Your task to perform on an android device: change the clock style Image 0: 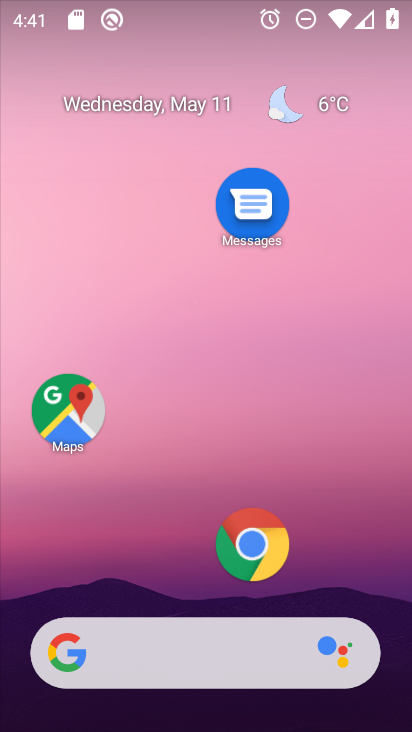
Step 0: drag from (161, 533) to (244, 1)
Your task to perform on an android device: change the clock style Image 1: 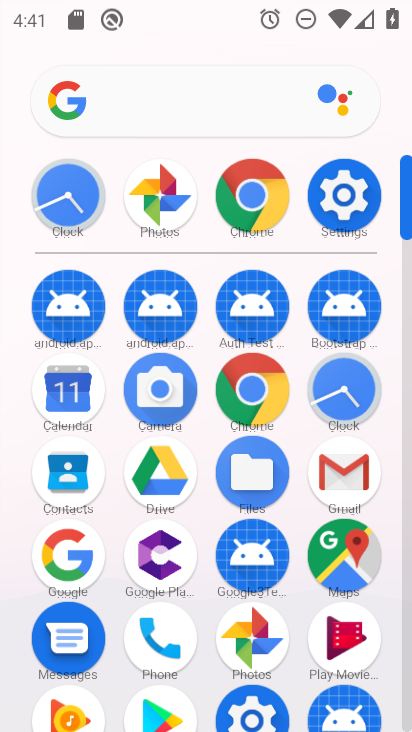
Step 1: click (349, 388)
Your task to perform on an android device: change the clock style Image 2: 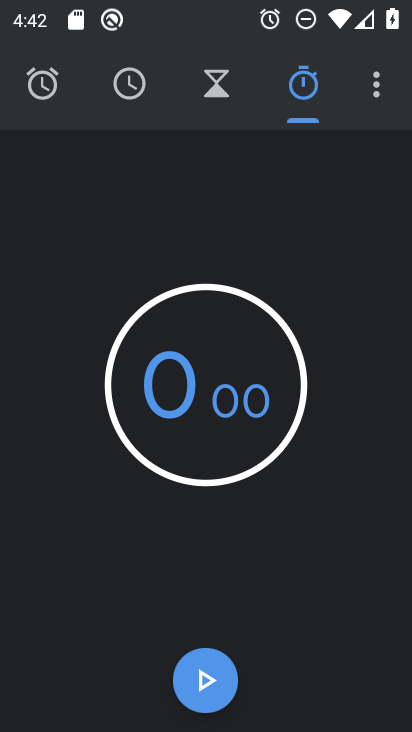
Step 2: click (377, 81)
Your task to perform on an android device: change the clock style Image 3: 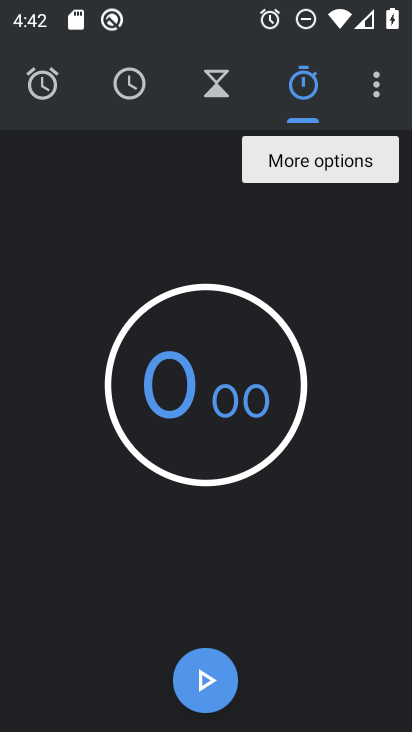
Step 3: click (377, 81)
Your task to perform on an android device: change the clock style Image 4: 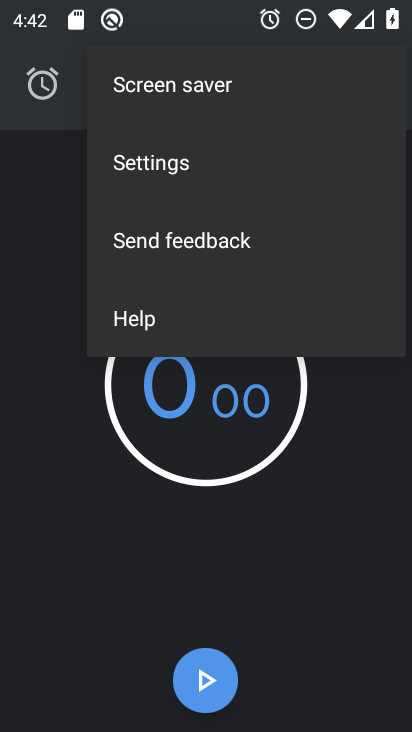
Step 4: click (165, 171)
Your task to perform on an android device: change the clock style Image 5: 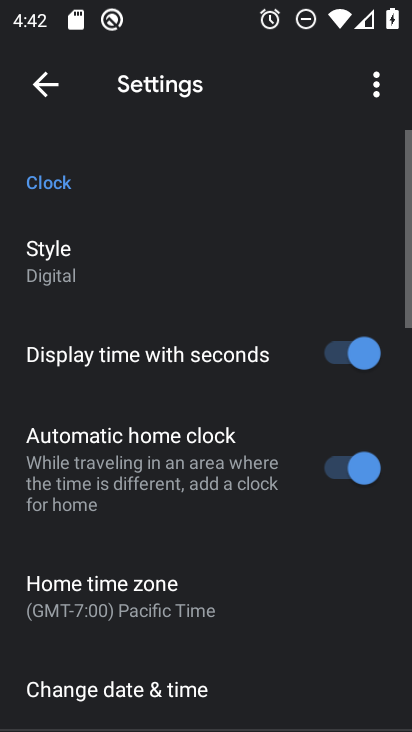
Step 5: click (119, 252)
Your task to perform on an android device: change the clock style Image 6: 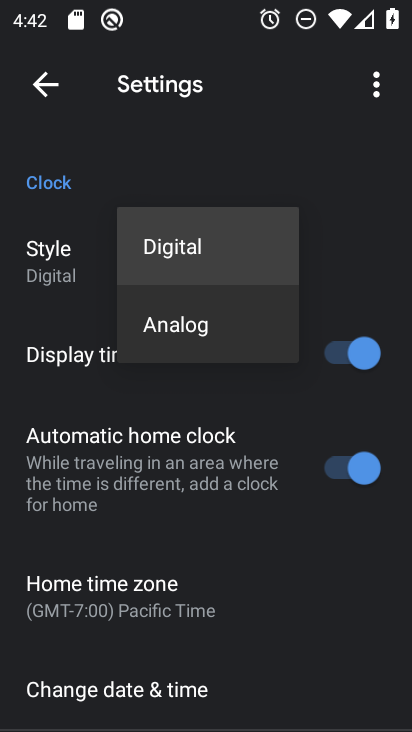
Step 6: click (198, 314)
Your task to perform on an android device: change the clock style Image 7: 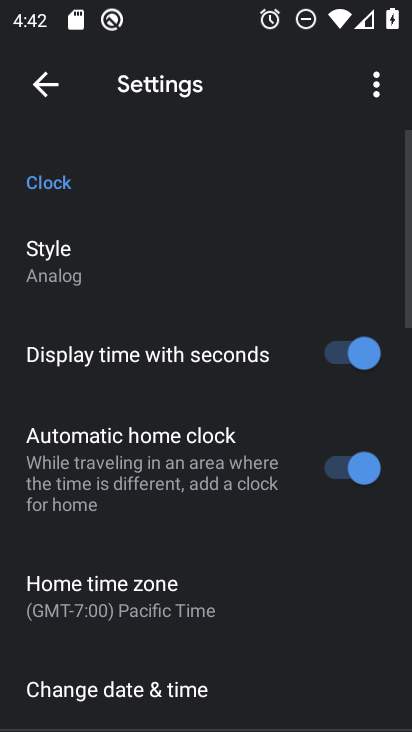
Step 7: task complete